Your task to perform on an android device: Open the stopwatch Image 0: 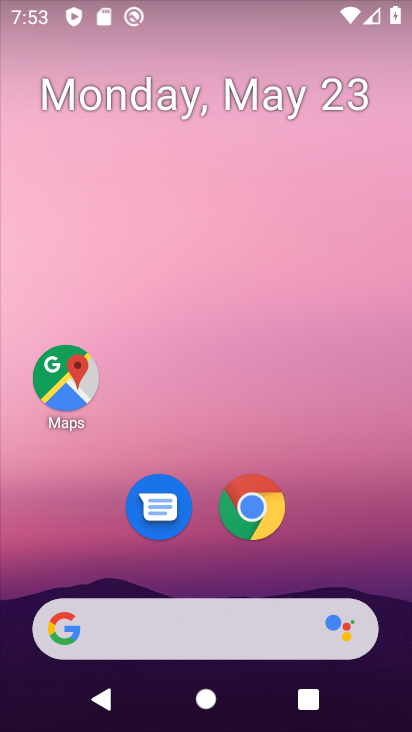
Step 0: drag from (358, 501) to (224, 107)
Your task to perform on an android device: Open the stopwatch Image 1: 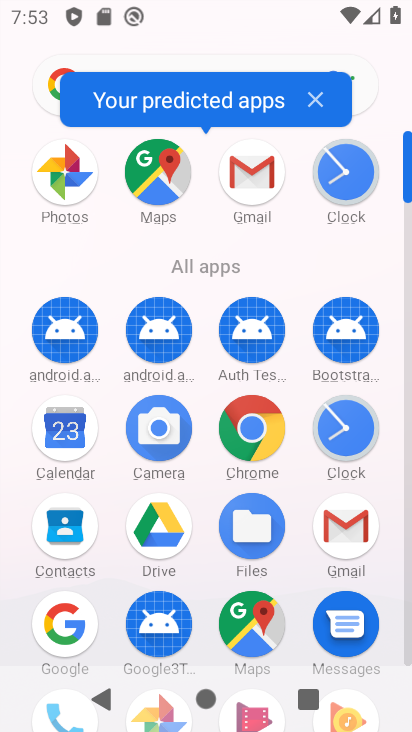
Step 1: click (363, 436)
Your task to perform on an android device: Open the stopwatch Image 2: 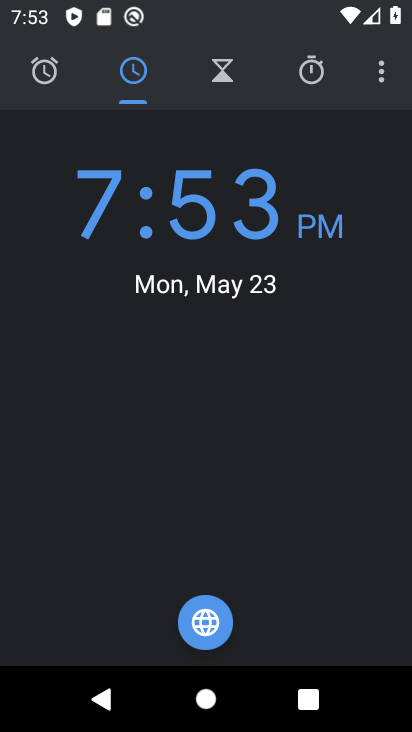
Step 2: click (306, 74)
Your task to perform on an android device: Open the stopwatch Image 3: 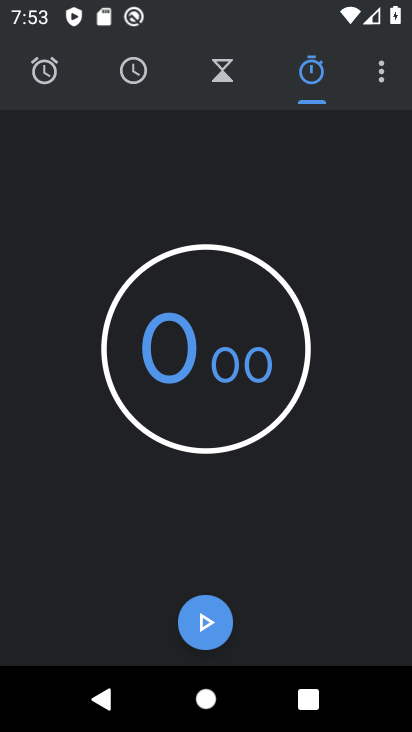
Step 3: click (213, 630)
Your task to perform on an android device: Open the stopwatch Image 4: 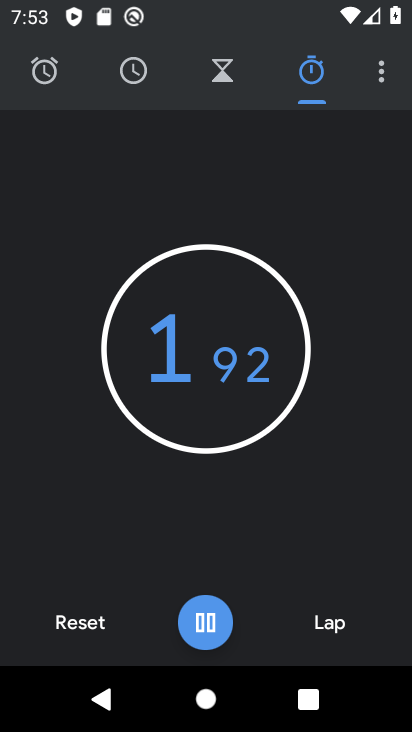
Step 4: task complete